Your task to perform on an android device: When is my next meeting? Image 0: 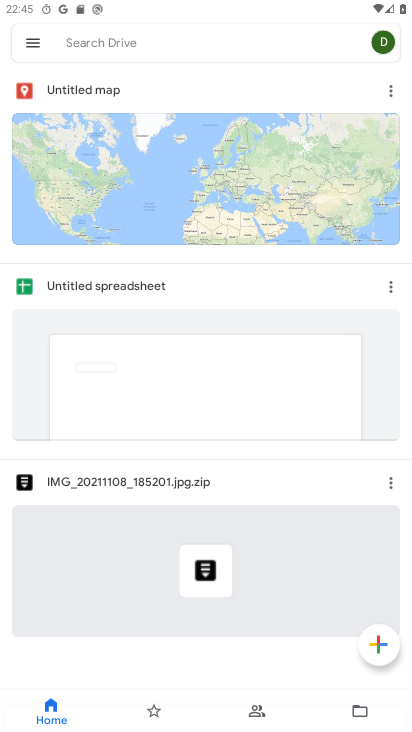
Step 0: press home button
Your task to perform on an android device: When is my next meeting? Image 1: 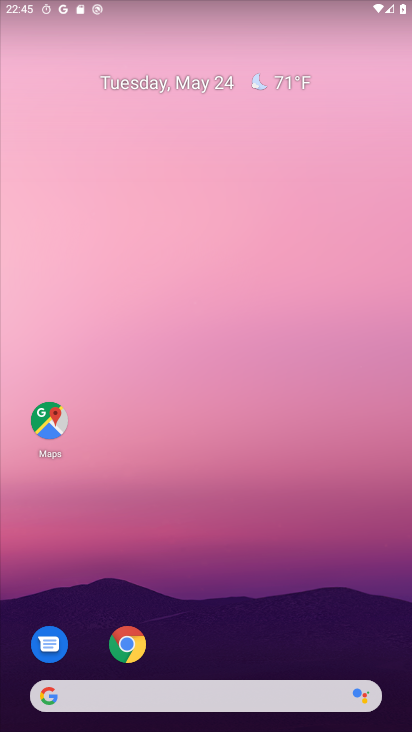
Step 1: click (232, 130)
Your task to perform on an android device: When is my next meeting? Image 2: 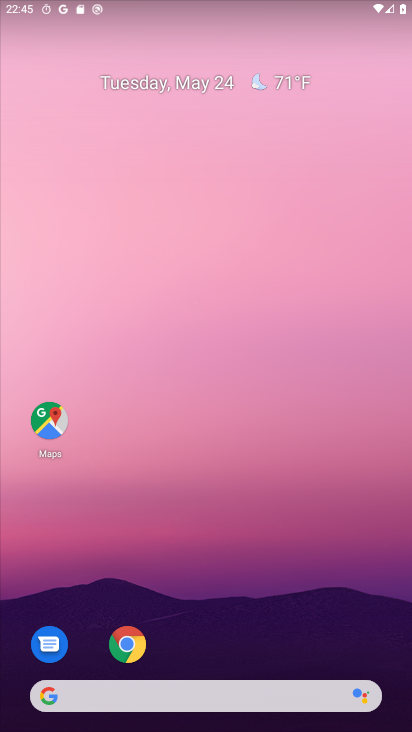
Step 2: drag from (221, 566) to (238, 158)
Your task to perform on an android device: When is my next meeting? Image 3: 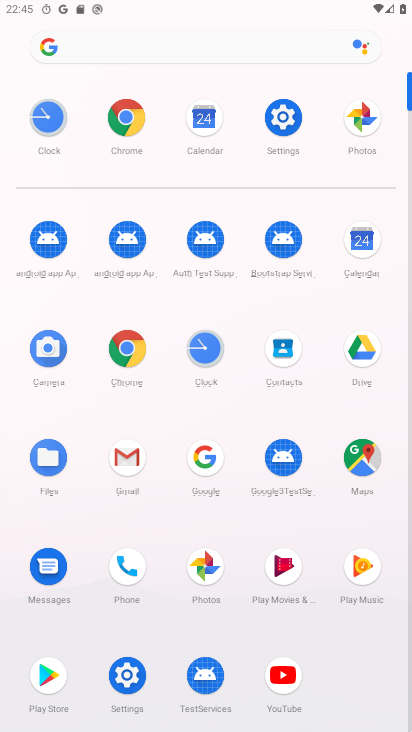
Step 3: click (371, 230)
Your task to perform on an android device: When is my next meeting? Image 4: 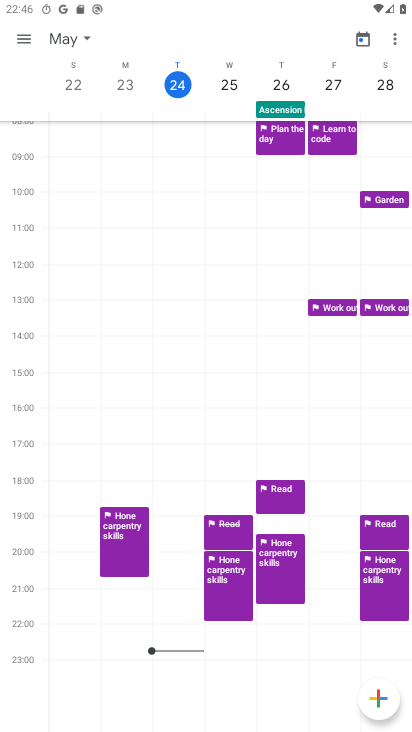
Step 4: click (173, 79)
Your task to perform on an android device: When is my next meeting? Image 5: 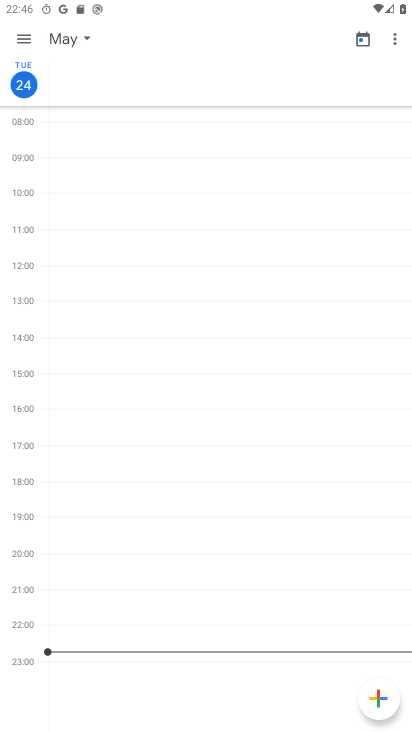
Step 5: task complete